Your task to perform on an android device: turn on sleep mode Image 0: 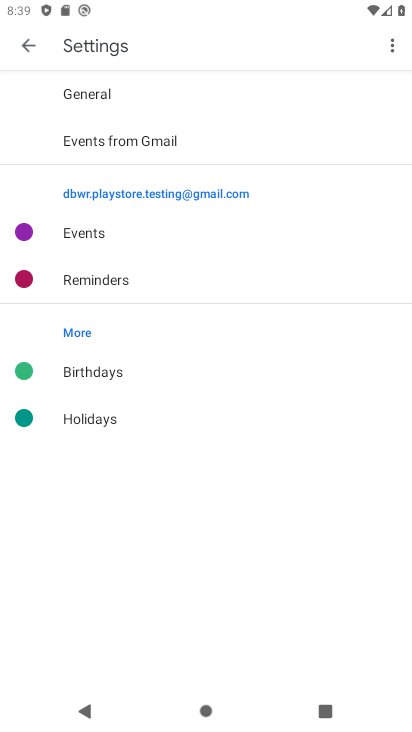
Step 0: press home button
Your task to perform on an android device: turn on sleep mode Image 1: 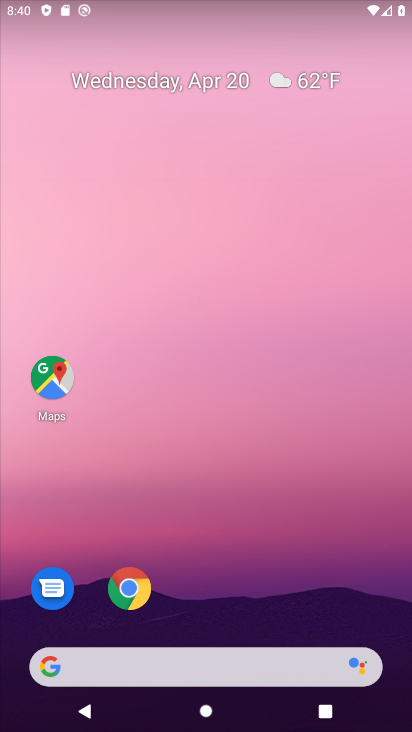
Step 1: drag from (206, 586) to (253, 38)
Your task to perform on an android device: turn on sleep mode Image 2: 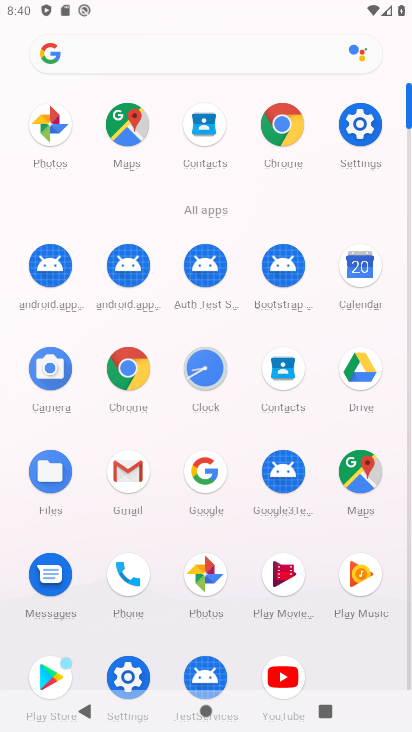
Step 2: click (357, 124)
Your task to perform on an android device: turn on sleep mode Image 3: 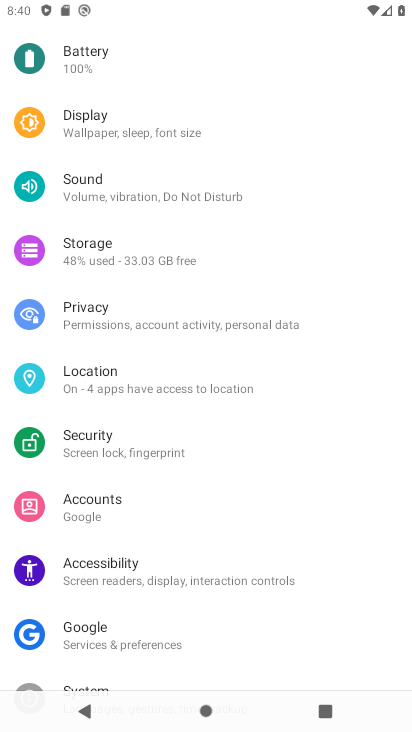
Step 3: click (118, 115)
Your task to perform on an android device: turn on sleep mode Image 4: 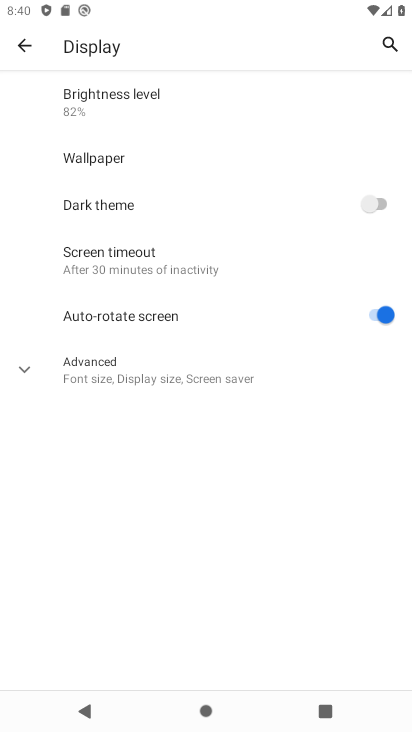
Step 4: click (20, 366)
Your task to perform on an android device: turn on sleep mode Image 5: 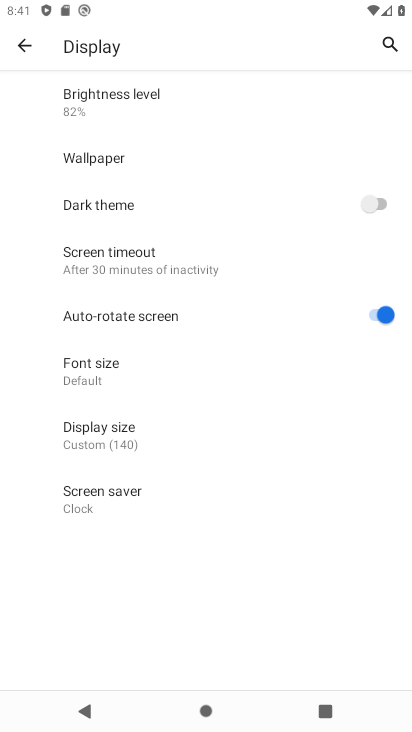
Step 5: task complete